Your task to perform on an android device: What's the weather going to be tomorrow? Image 0: 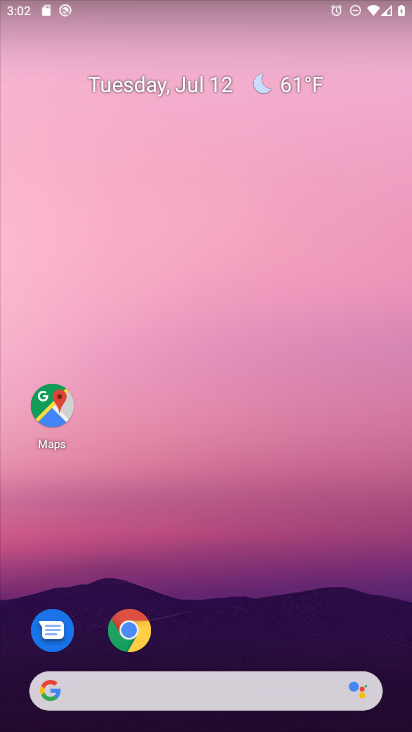
Step 0: drag from (203, 645) to (201, 203)
Your task to perform on an android device: What's the weather going to be tomorrow? Image 1: 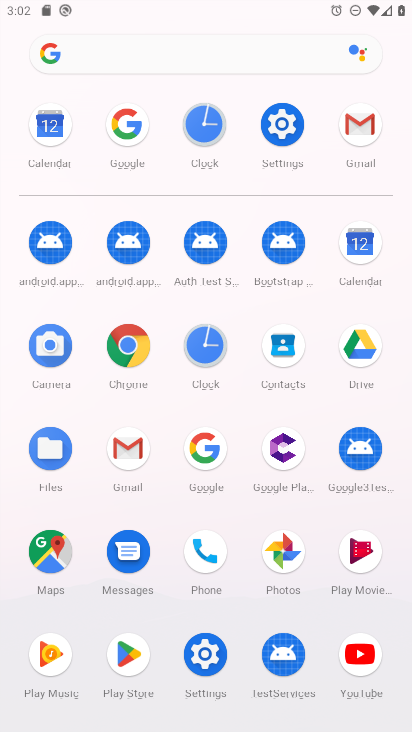
Step 1: click (191, 448)
Your task to perform on an android device: What's the weather going to be tomorrow? Image 2: 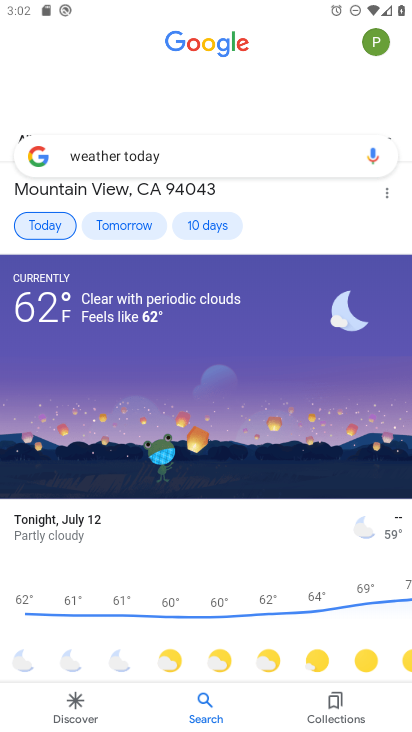
Step 2: click (214, 157)
Your task to perform on an android device: What's the weather going to be tomorrow? Image 3: 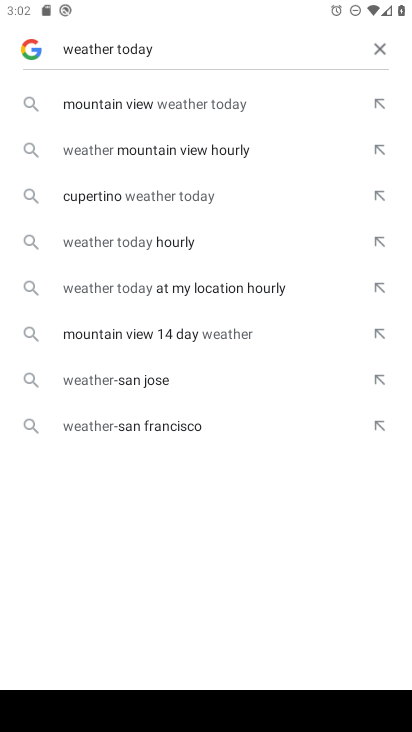
Step 3: click (373, 44)
Your task to perform on an android device: What's the weather going to be tomorrow? Image 4: 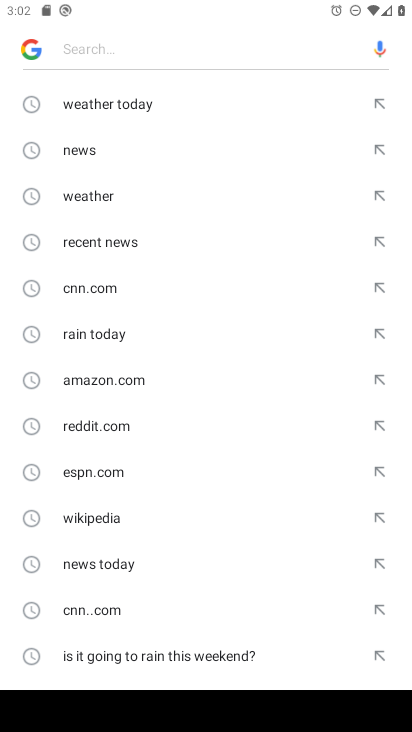
Step 4: click (139, 201)
Your task to perform on an android device: What's the weather going to be tomorrow? Image 5: 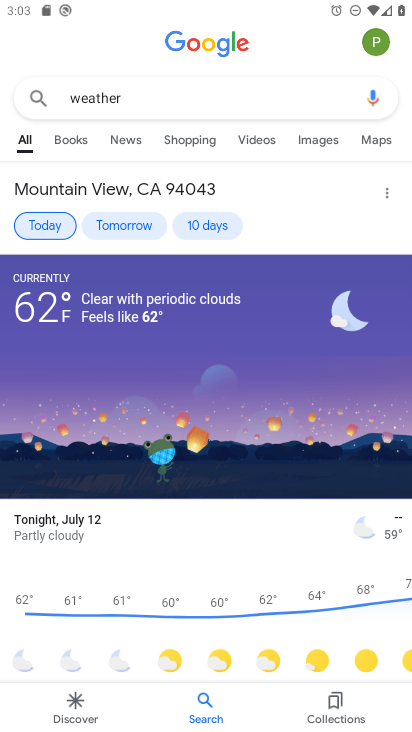
Step 5: click (129, 368)
Your task to perform on an android device: What's the weather going to be tomorrow? Image 6: 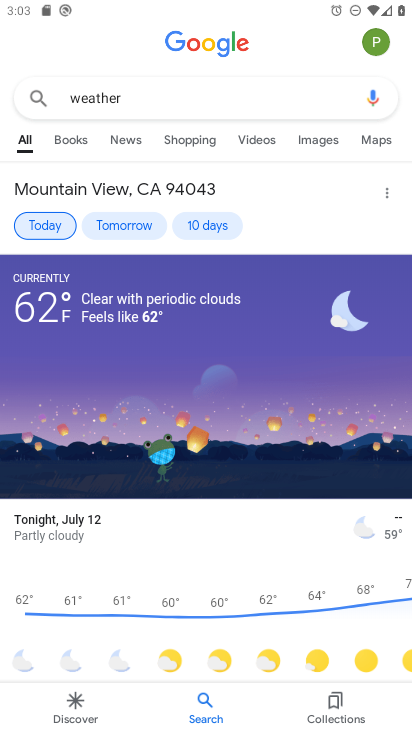
Step 6: click (101, 211)
Your task to perform on an android device: What's the weather going to be tomorrow? Image 7: 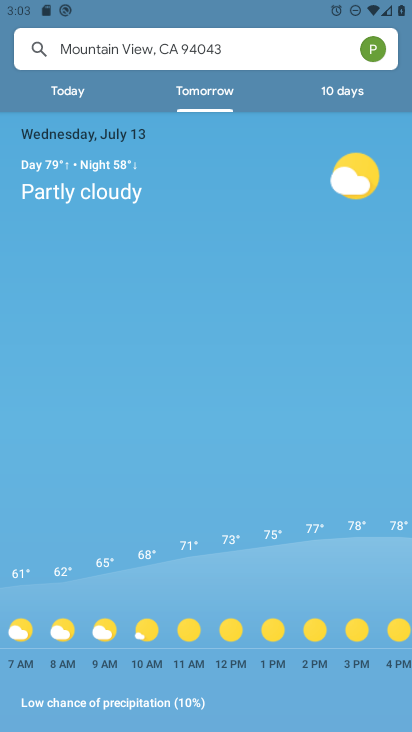
Step 7: task complete